Your task to perform on an android device: Go to ESPN.com Image 0: 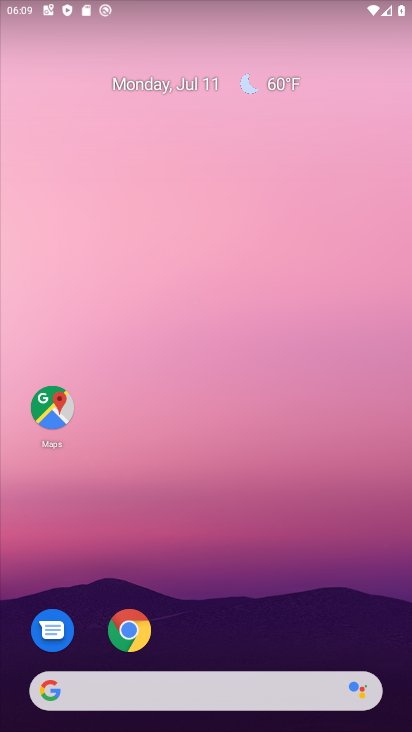
Step 0: click (124, 628)
Your task to perform on an android device: Go to ESPN.com Image 1: 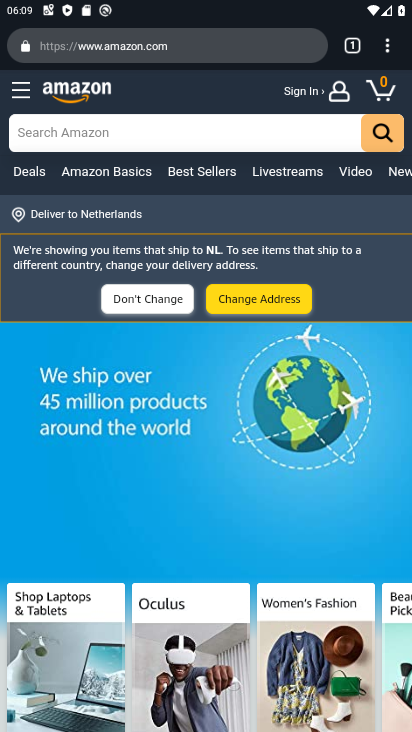
Step 1: click (354, 47)
Your task to perform on an android device: Go to ESPN.com Image 2: 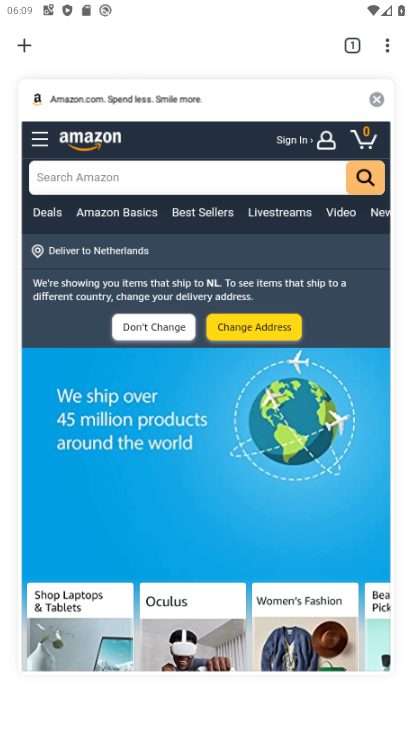
Step 2: click (26, 47)
Your task to perform on an android device: Go to ESPN.com Image 3: 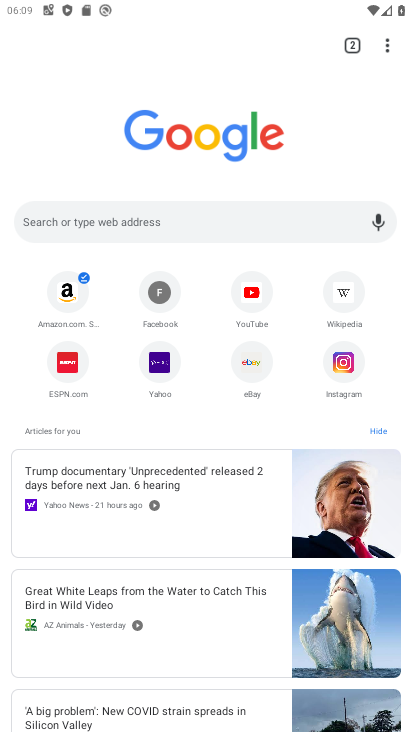
Step 3: click (63, 381)
Your task to perform on an android device: Go to ESPN.com Image 4: 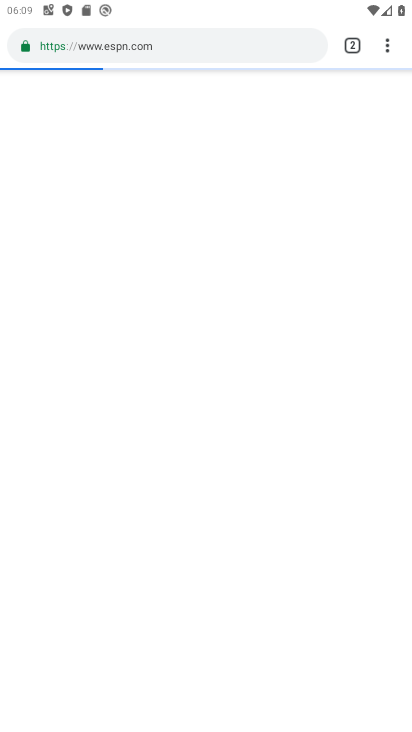
Step 4: click (70, 356)
Your task to perform on an android device: Go to ESPN.com Image 5: 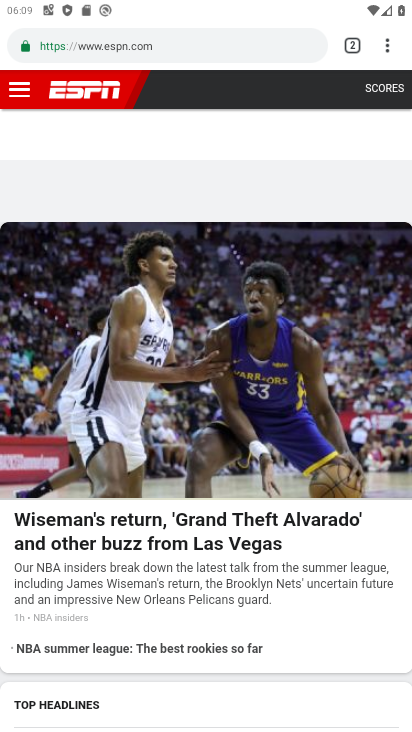
Step 5: task complete